Your task to perform on an android device: Is it going to rain tomorrow? Image 0: 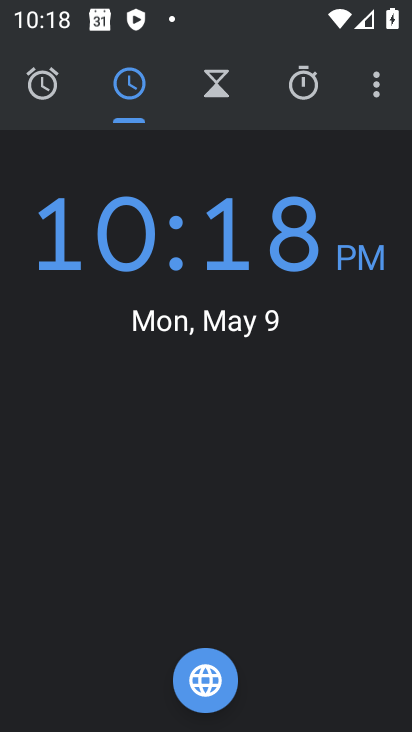
Step 0: press home button
Your task to perform on an android device: Is it going to rain tomorrow? Image 1: 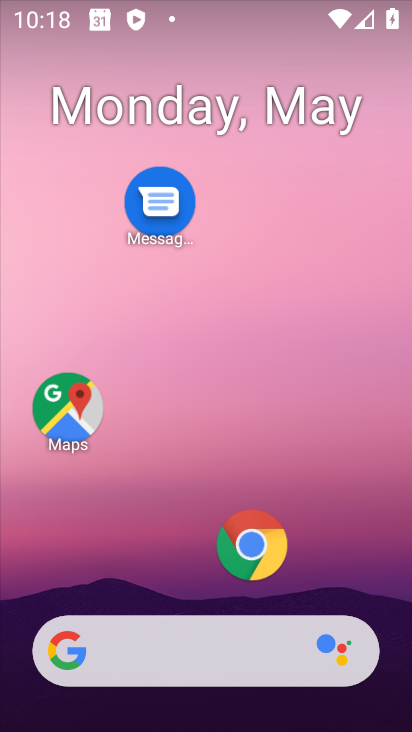
Step 1: drag from (152, 576) to (206, 43)
Your task to perform on an android device: Is it going to rain tomorrow? Image 2: 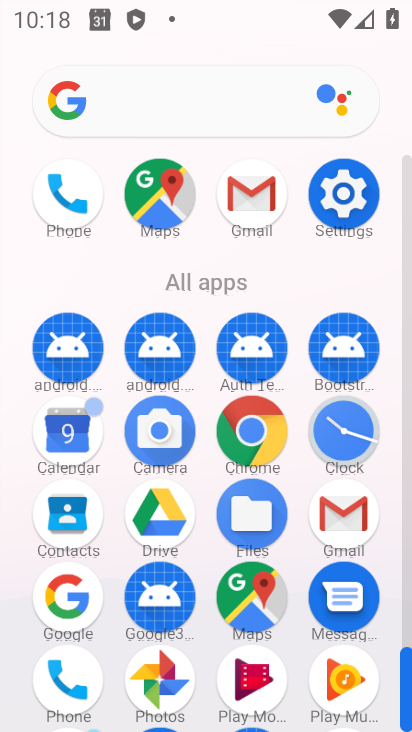
Step 2: click (169, 150)
Your task to perform on an android device: Is it going to rain tomorrow? Image 3: 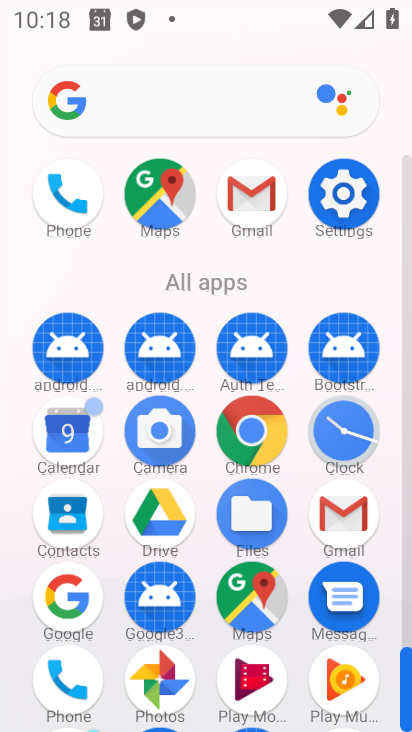
Step 3: click (171, 123)
Your task to perform on an android device: Is it going to rain tomorrow? Image 4: 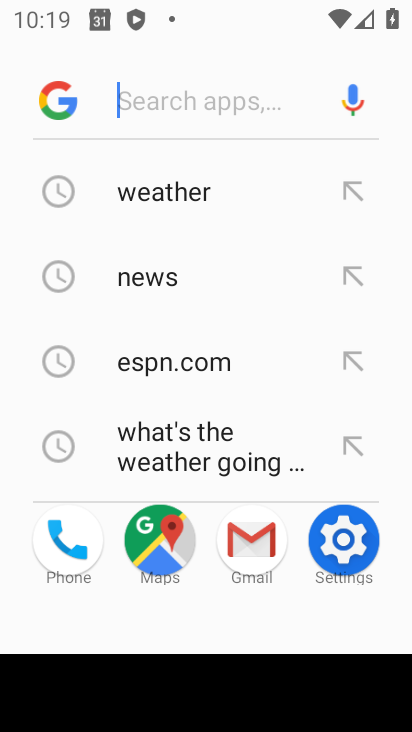
Step 4: type "is it going to rain tomorrow"
Your task to perform on an android device: Is it going to rain tomorrow? Image 5: 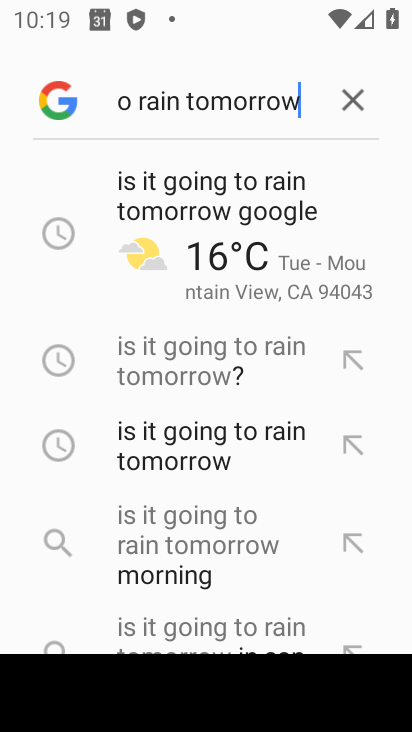
Step 5: click (234, 348)
Your task to perform on an android device: Is it going to rain tomorrow? Image 6: 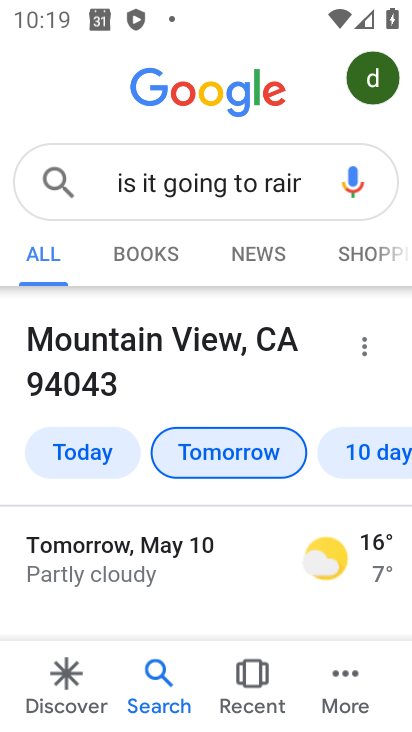
Step 6: task complete